Your task to perform on an android device: turn notification dots on Image 0: 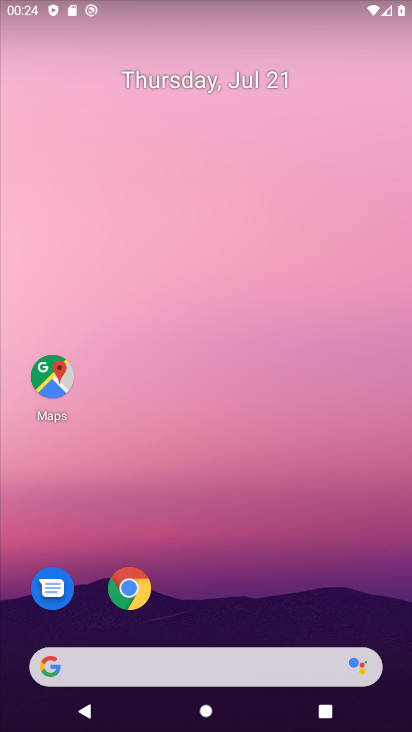
Step 0: drag from (276, 544) to (237, 142)
Your task to perform on an android device: turn notification dots on Image 1: 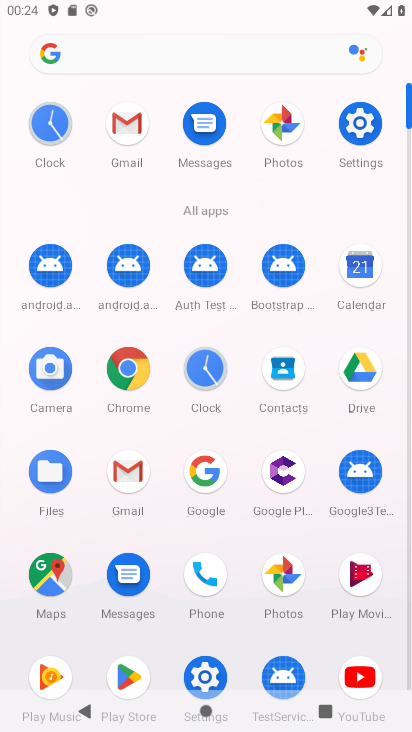
Step 1: click (211, 668)
Your task to perform on an android device: turn notification dots on Image 2: 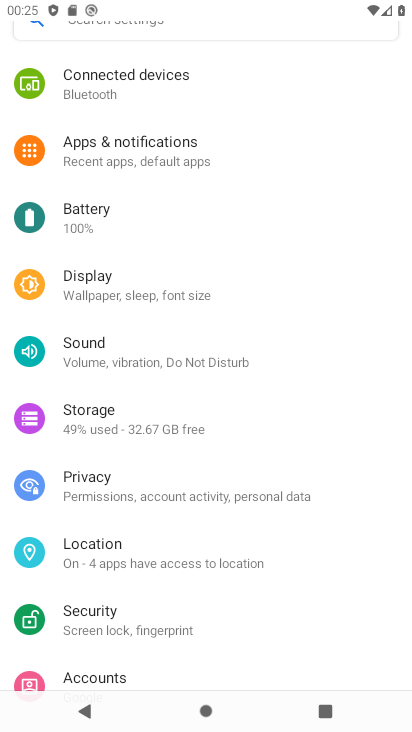
Step 2: click (138, 156)
Your task to perform on an android device: turn notification dots on Image 3: 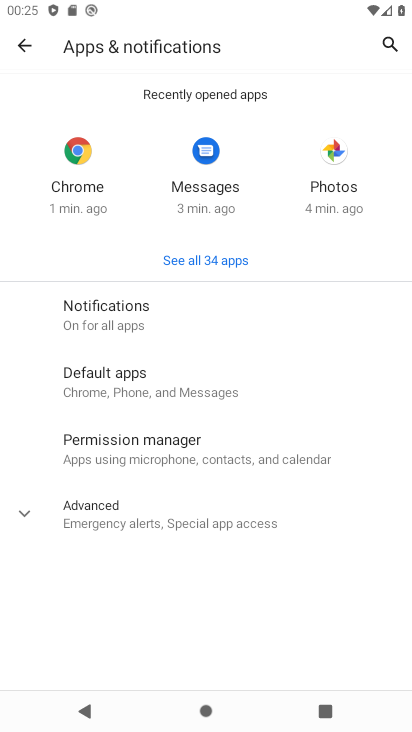
Step 3: click (135, 314)
Your task to perform on an android device: turn notification dots on Image 4: 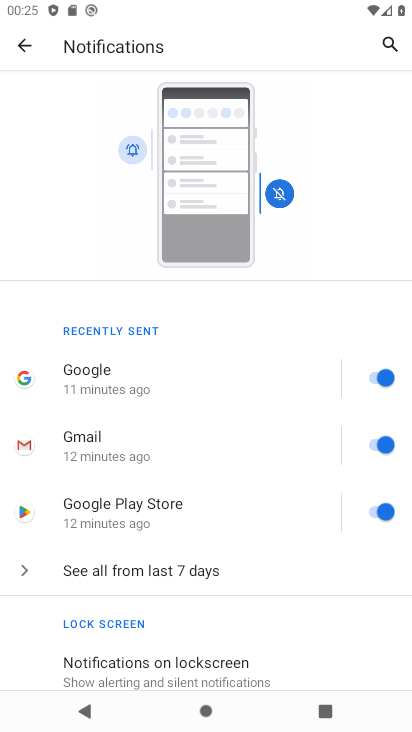
Step 4: drag from (344, 641) to (182, 141)
Your task to perform on an android device: turn notification dots on Image 5: 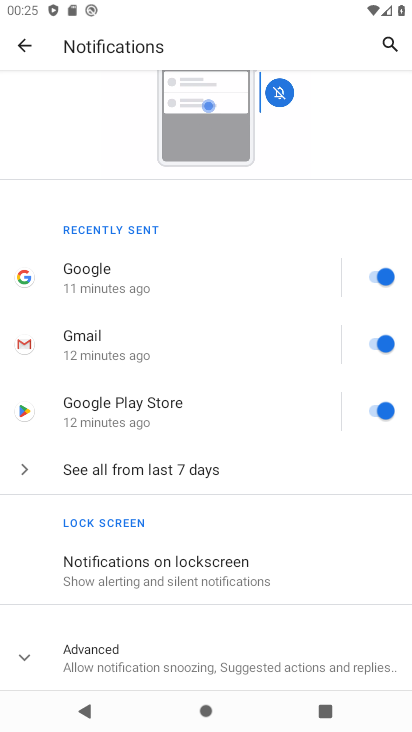
Step 5: click (293, 668)
Your task to perform on an android device: turn notification dots on Image 6: 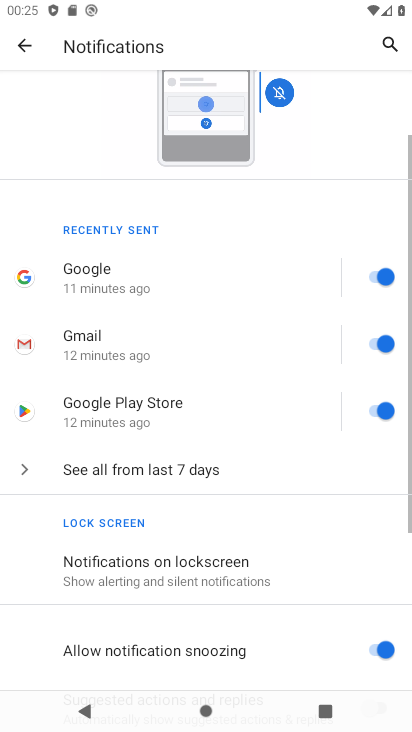
Step 6: drag from (283, 633) to (293, 48)
Your task to perform on an android device: turn notification dots on Image 7: 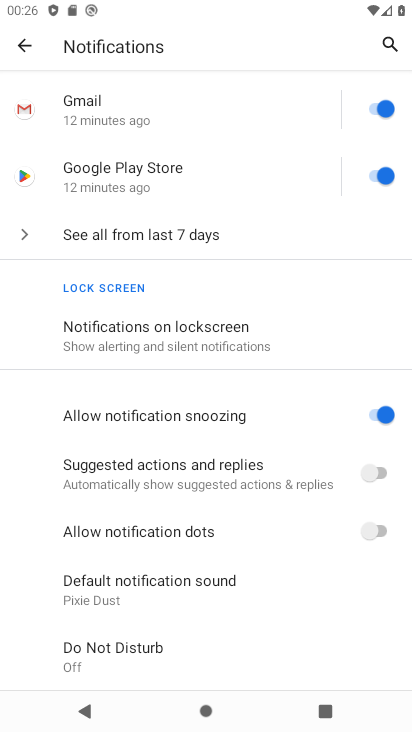
Step 7: click (369, 534)
Your task to perform on an android device: turn notification dots on Image 8: 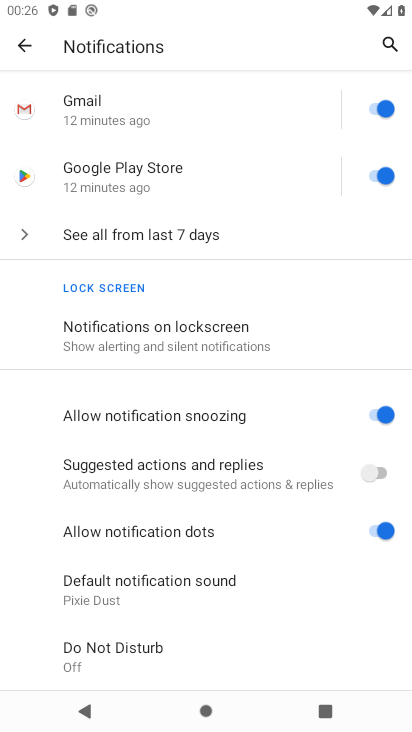
Step 8: task complete